Your task to perform on an android device: Go to display settings Image 0: 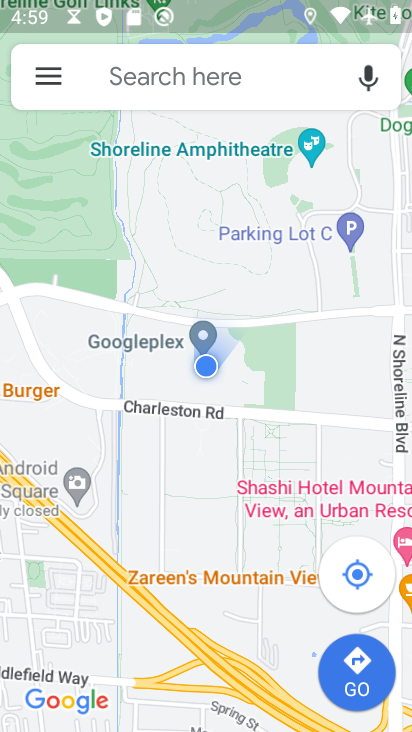
Step 0: press back button
Your task to perform on an android device: Go to display settings Image 1: 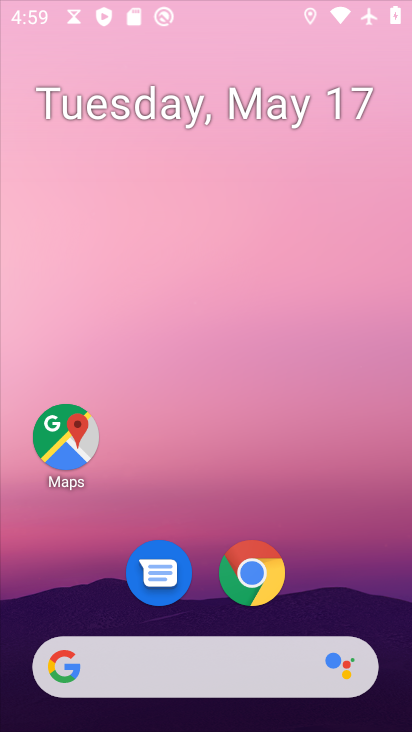
Step 1: press home button
Your task to perform on an android device: Go to display settings Image 2: 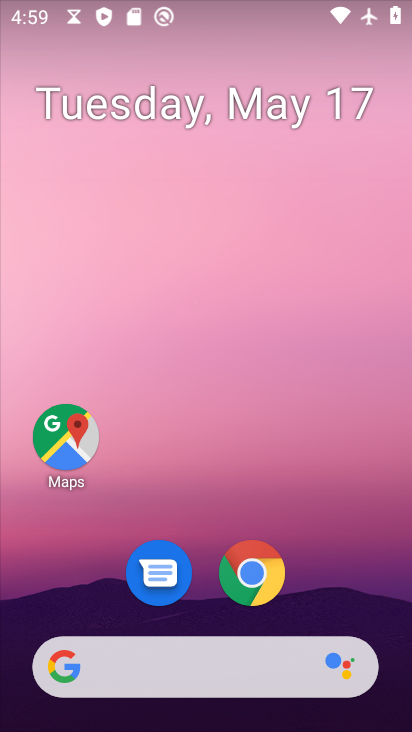
Step 2: drag from (310, 699) to (195, 149)
Your task to perform on an android device: Go to display settings Image 3: 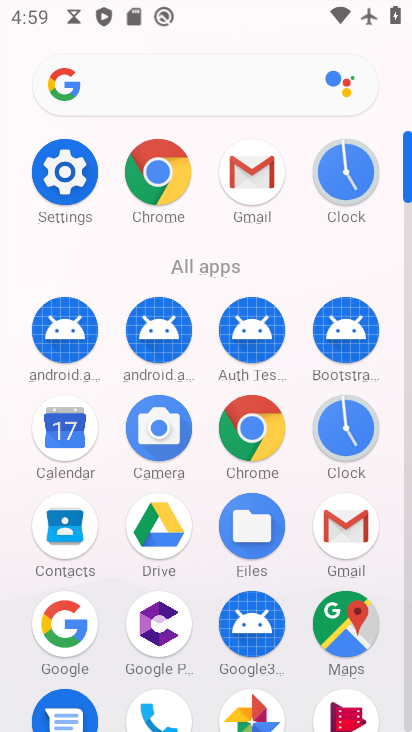
Step 3: click (65, 181)
Your task to perform on an android device: Go to display settings Image 4: 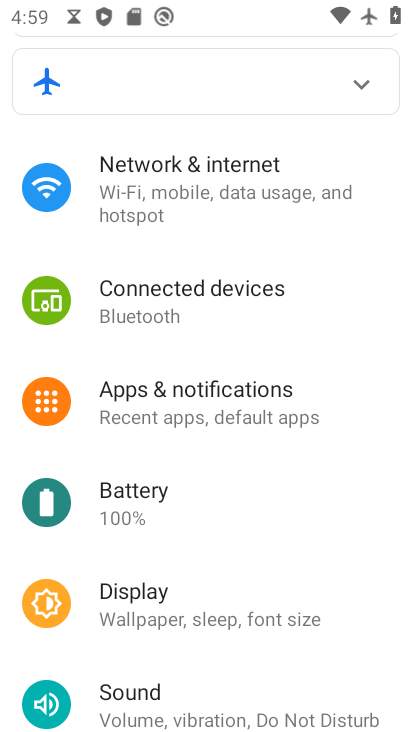
Step 4: click (150, 614)
Your task to perform on an android device: Go to display settings Image 5: 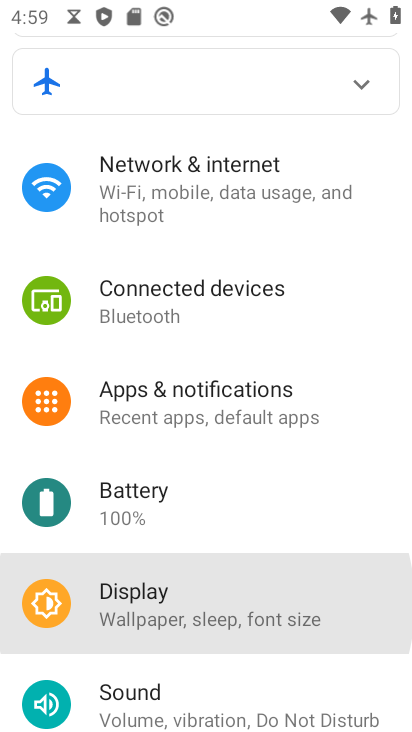
Step 5: click (150, 614)
Your task to perform on an android device: Go to display settings Image 6: 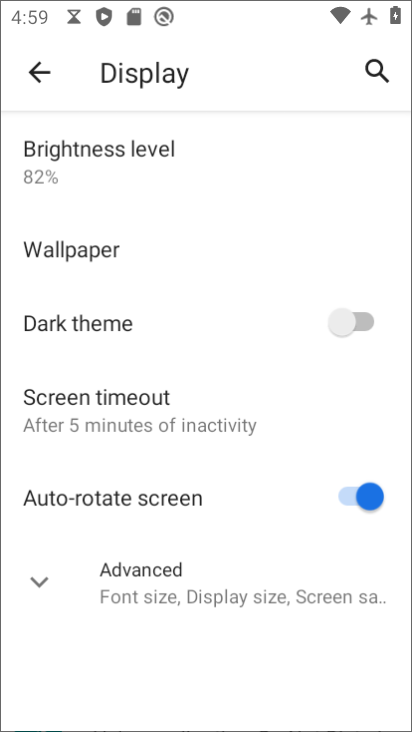
Step 6: click (150, 614)
Your task to perform on an android device: Go to display settings Image 7: 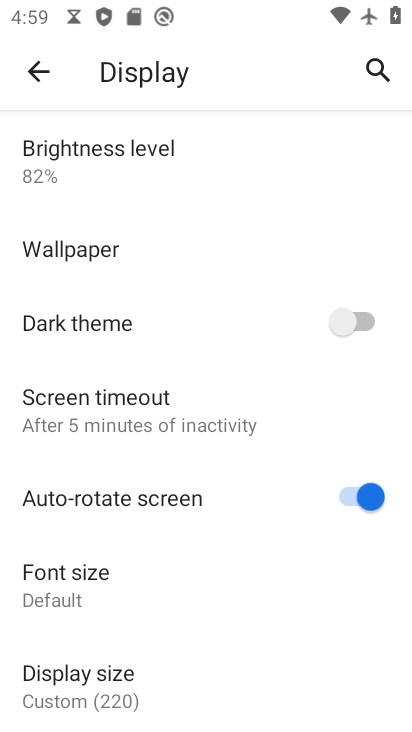
Step 7: drag from (149, 555) to (151, 280)
Your task to perform on an android device: Go to display settings Image 8: 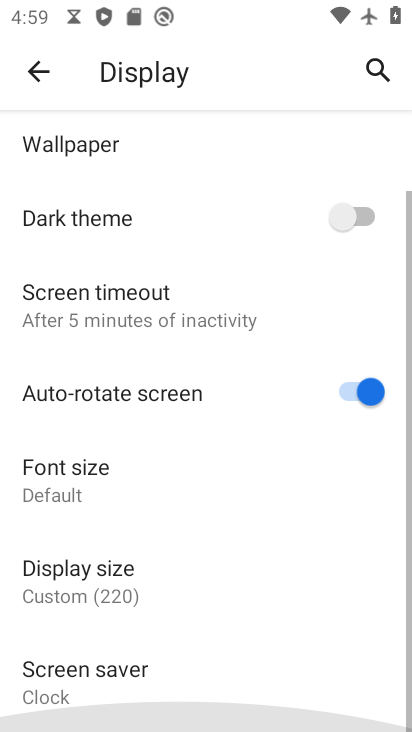
Step 8: drag from (195, 537) to (198, 298)
Your task to perform on an android device: Go to display settings Image 9: 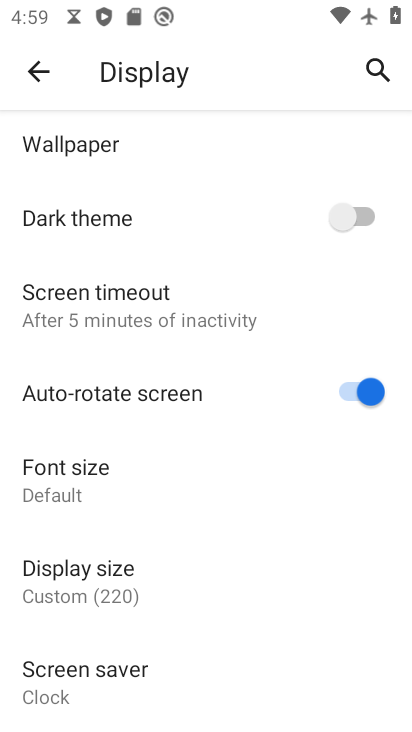
Step 9: drag from (119, 553) to (115, 218)
Your task to perform on an android device: Go to display settings Image 10: 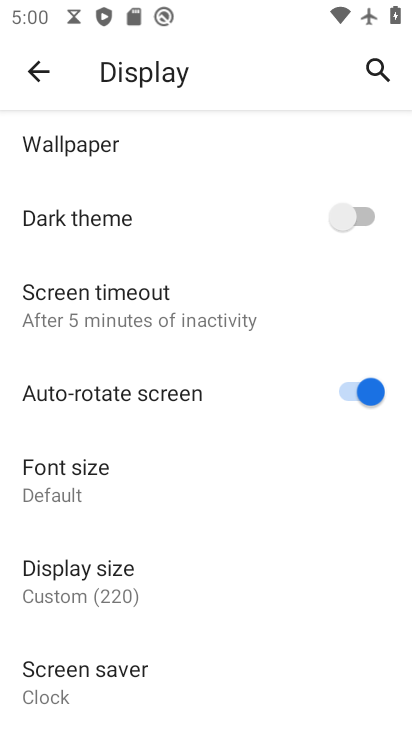
Step 10: drag from (87, 326) to (152, 715)
Your task to perform on an android device: Go to display settings Image 11: 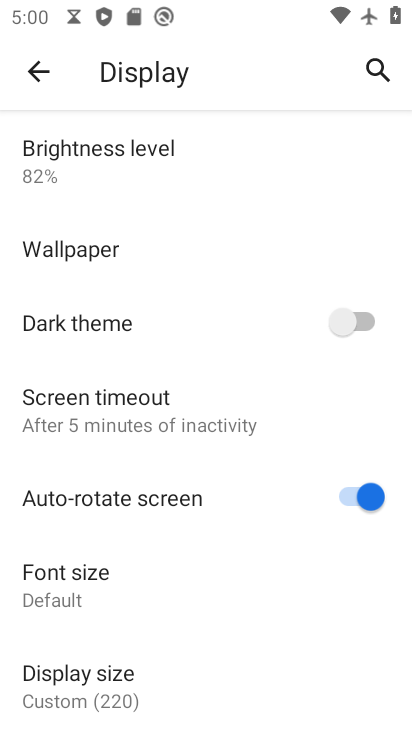
Step 11: drag from (89, 247) to (195, 622)
Your task to perform on an android device: Go to display settings Image 12: 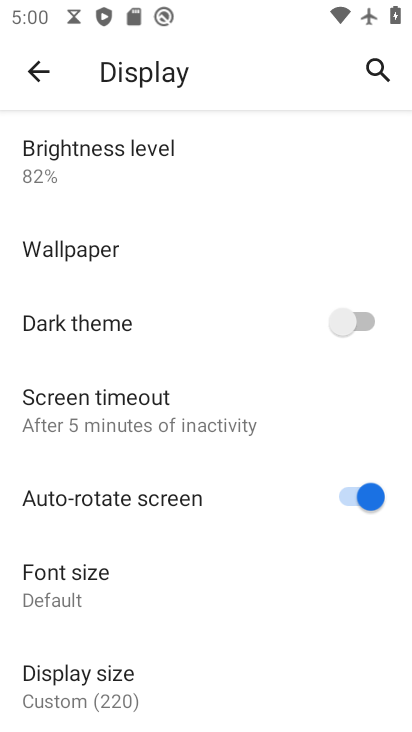
Step 12: drag from (72, 246) to (200, 567)
Your task to perform on an android device: Go to display settings Image 13: 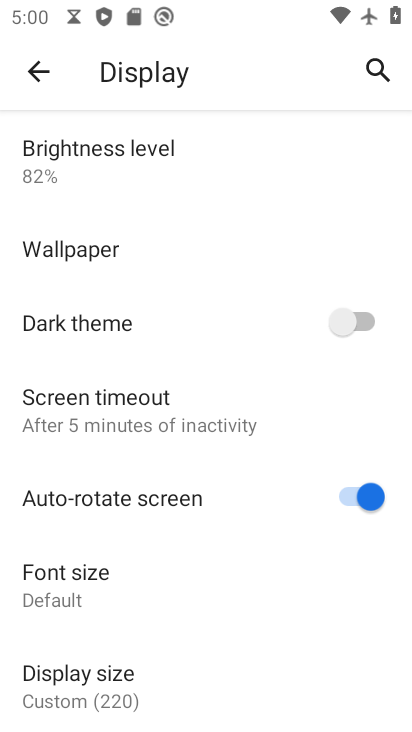
Step 13: click (50, 688)
Your task to perform on an android device: Go to display settings Image 14: 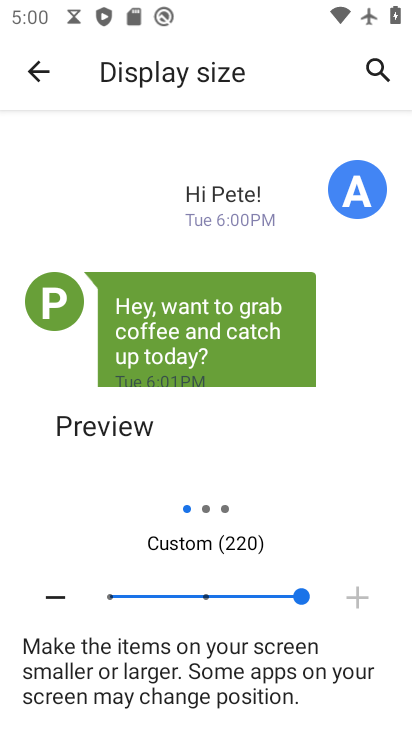
Step 14: click (31, 65)
Your task to perform on an android device: Go to display settings Image 15: 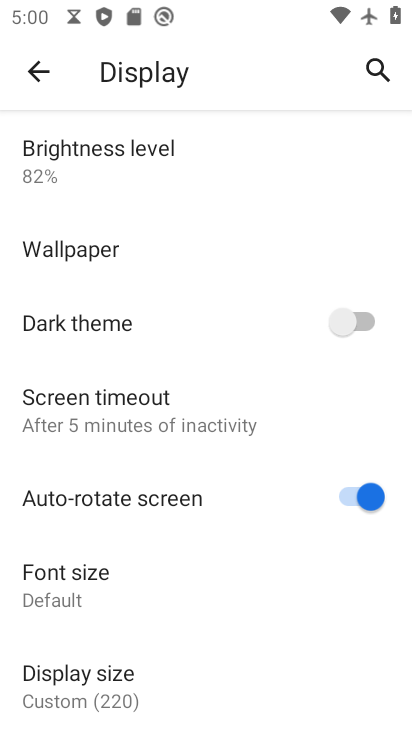
Step 15: task complete